Your task to perform on an android device: Go to CNN.com Image 0: 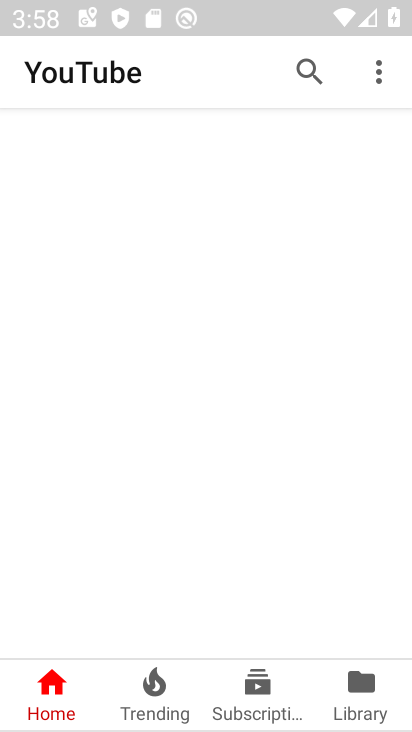
Step 0: click (257, 570)
Your task to perform on an android device: Go to CNN.com Image 1: 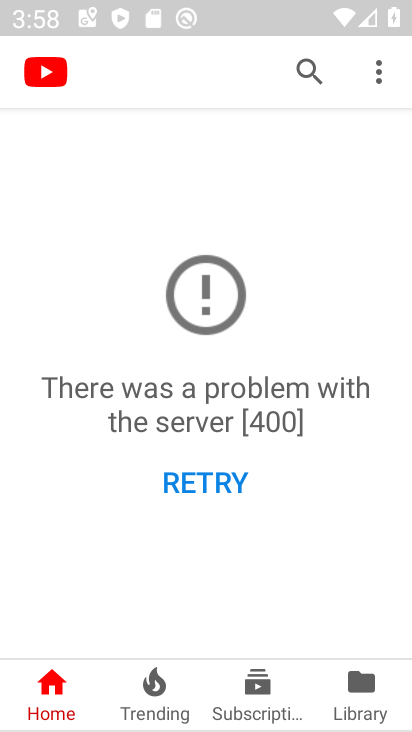
Step 1: press home button
Your task to perform on an android device: Go to CNN.com Image 2: 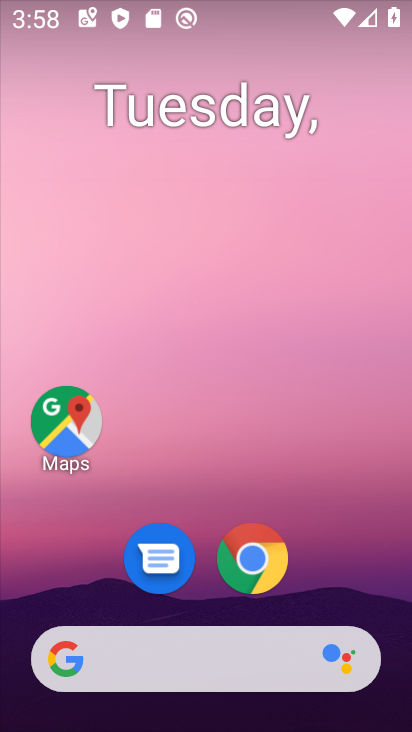
Step 2: click (251, 562)
Your task to perform on an android device: Go to CNN.com Image 3: 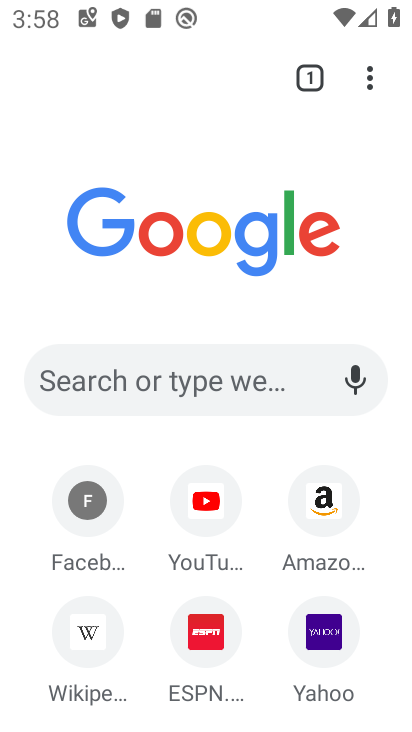
Step 3: click (228, 386)
Your task to perform on an android device: Go to CNN.com Image 4: 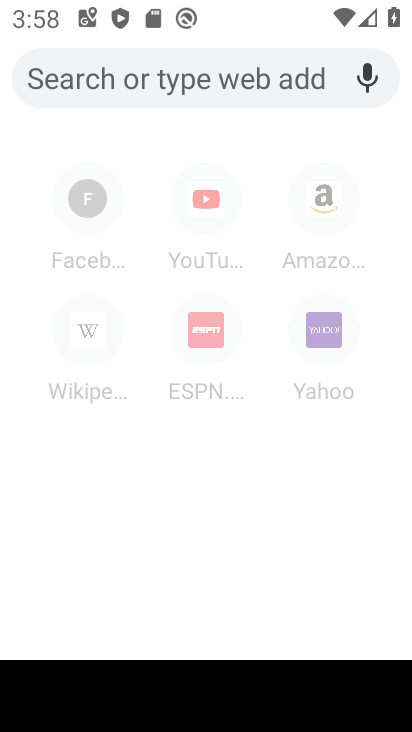
Step 4: type "CNN.com"
Your task to perform on an android device: Go to CNN.com Image 5: 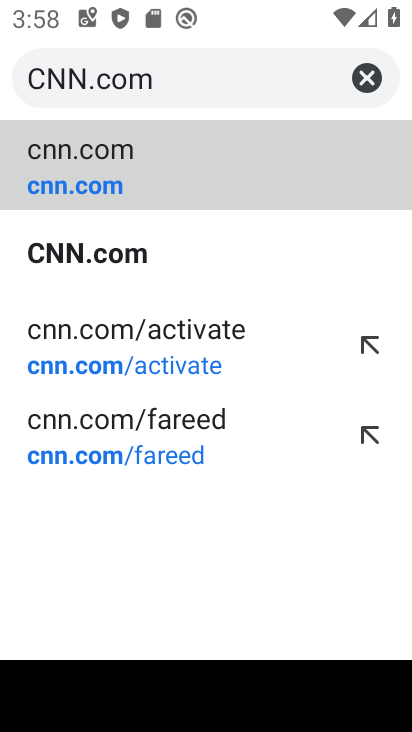
Step 5: click (159, 244)
Your task to perform on an android device: Go to CNN.com Image 6: 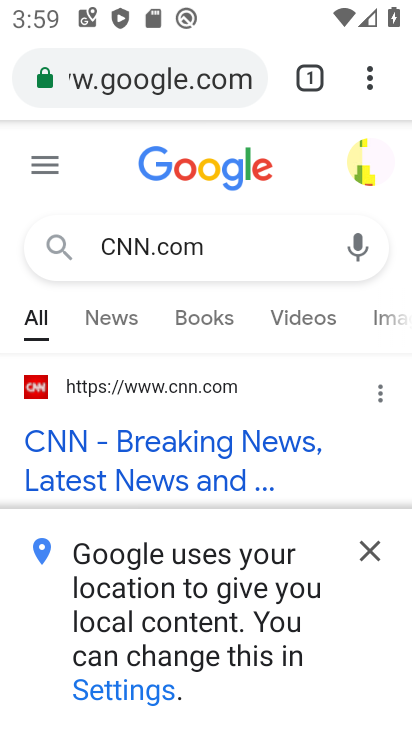
Step 6: click (375, 553)
Your task to perform on an android device: Go to CNN.com Image 7: 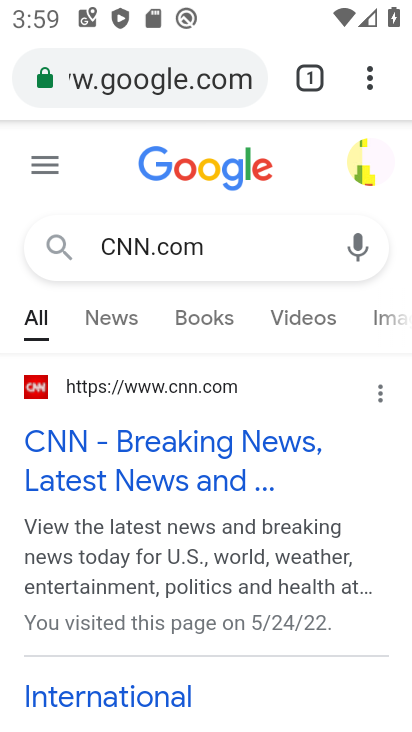
Step 7: drag from (132, 632) to (249, 255)
Your task to perform on an android device: Go to CNN.com Image 8: 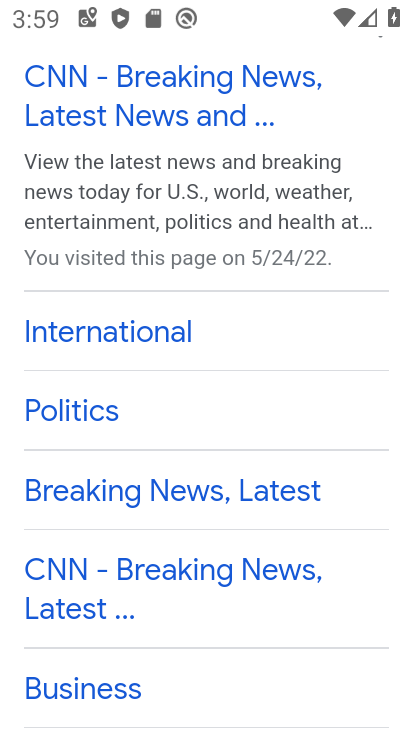
Step 8: click (176, 84)
Your task to perform on an android device: Go to CNN.com Image 9: 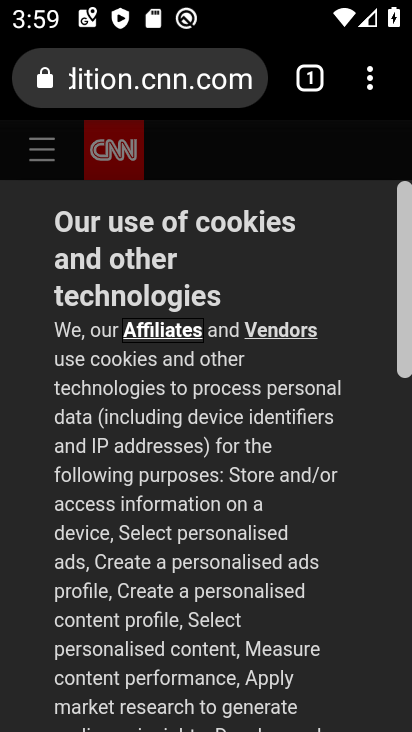
Step 9: task complete